Your task to perform on an android device: open a bookmark in the chrome app Image 0: 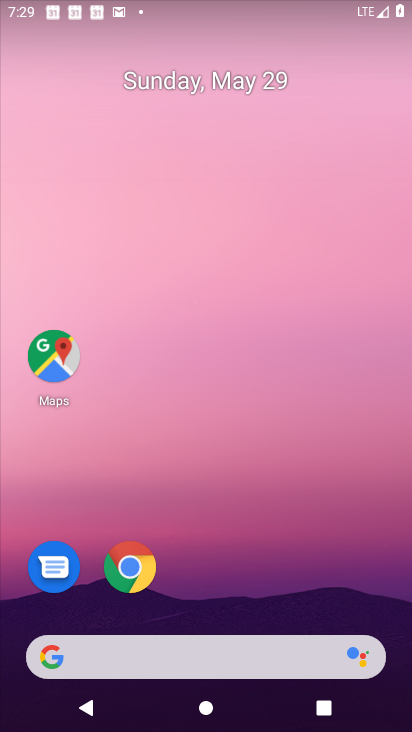
Step 0: click (124, 573)
Your task to perform on an android device: open a bookmark in the chrome app Image 1: 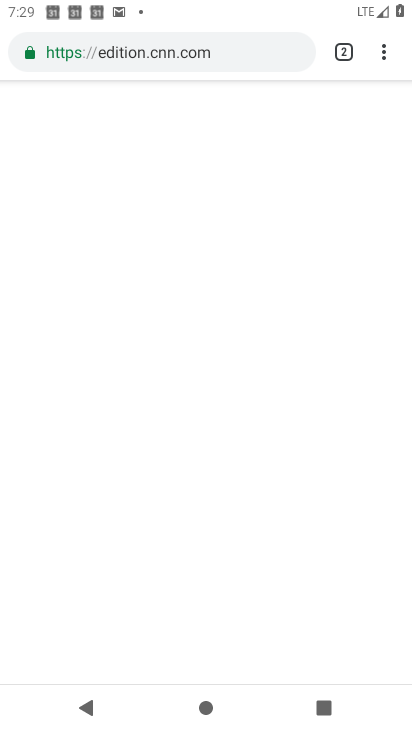
Step 1: click (389, 43)
Your task to perform on an android device: open a bookmark in the chrome app Image 2: 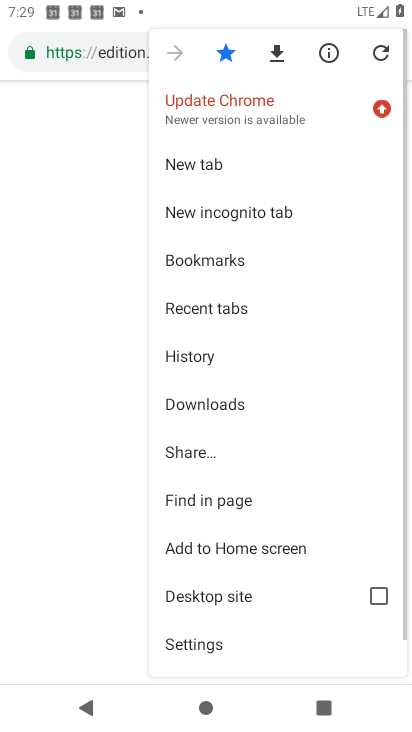
Step 2: click (237, 266)
Your task to perform on an android device: open a bookmark in the chrome app Image 3: 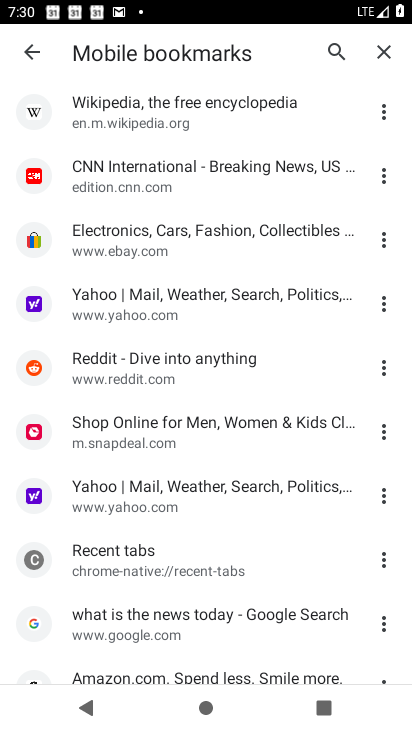
Step 3: task complete